Your task to perform on an android device: toggle pop-ups in chrome Image 0: 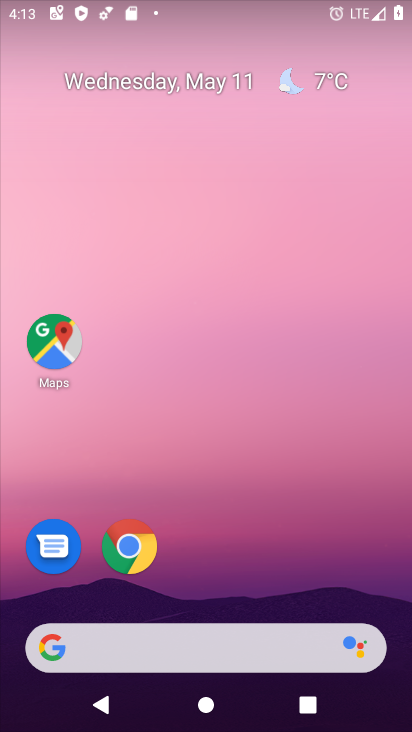
Step 0: drag from (358, 630) to (411, 235)
Your task to perform on an android device: toggle pop-ups in chrome Image 1: 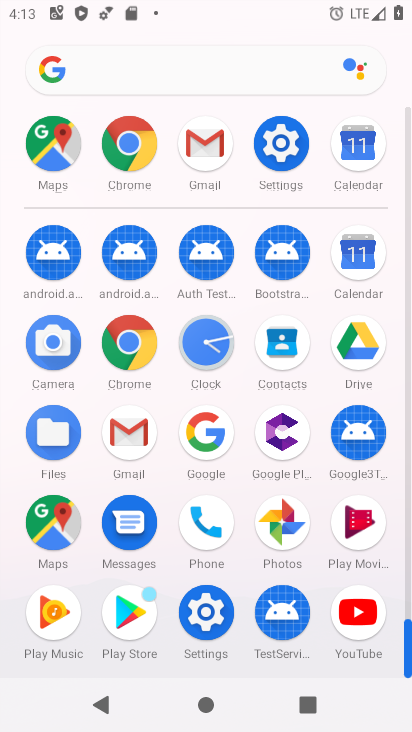
Step 1: click (123, 331)
Your task to perform on an android device: toggle pop-ups in chrome Image 2: 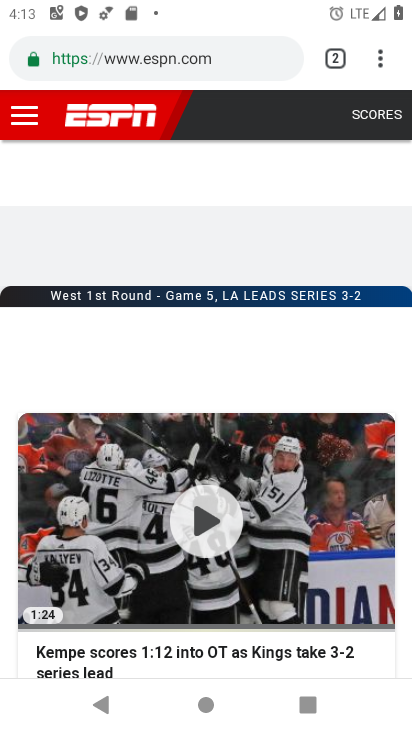
Step 2: click (384, 57)
Your task to perform on an android device: toggle pop-ups in chrome Image 3: 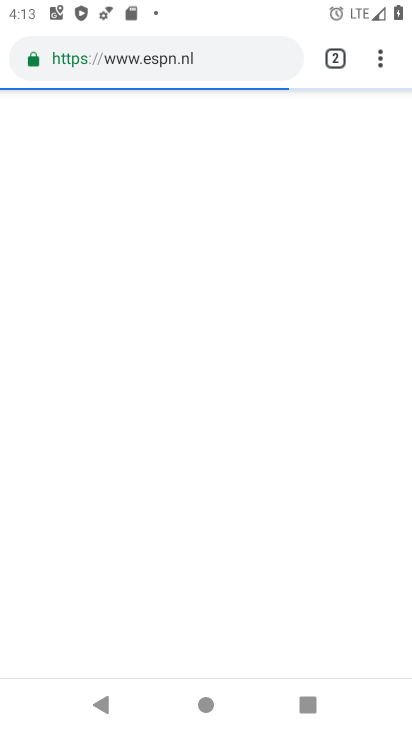
Step 3: click (375, 58)
Your task to perform on an android device: toggle pop-ups in chrome Image 4: 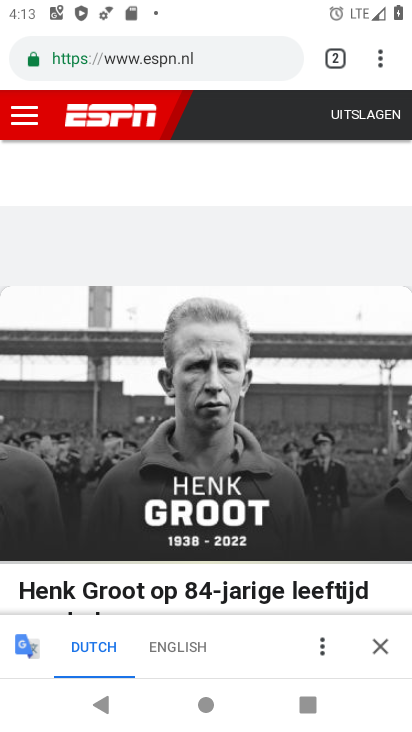
Step 4: drag from (379, 56) to (208, 585)
Your task to perform on an android device: toggle pop-ups in chrome Image 5: 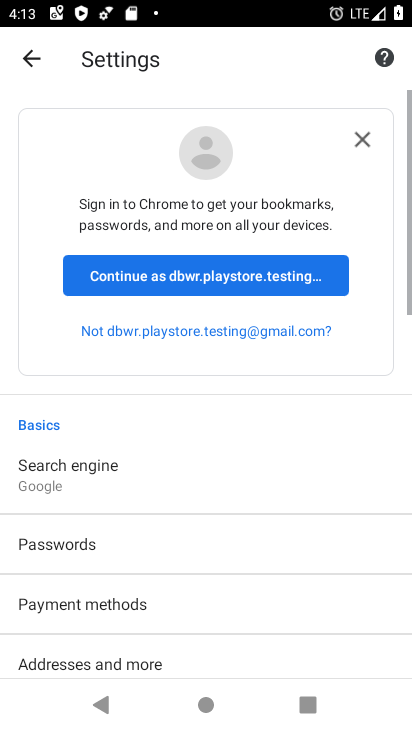
Step 5: drag from (162, 584) to (225, 71)
Your task to perform on an android device: toggle pop-ups in chrome Image 6: 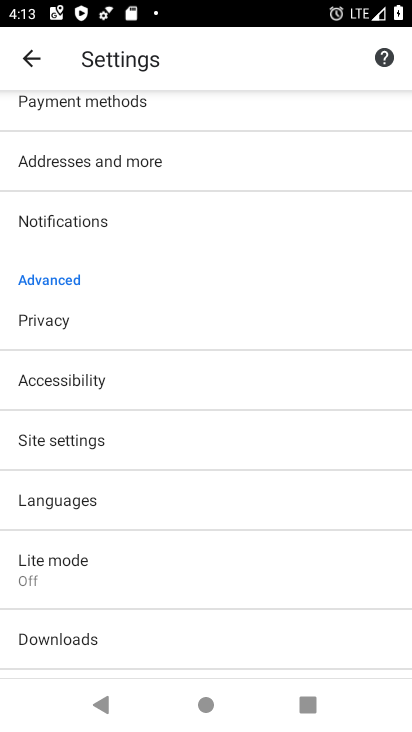
Step 6: click (132, 443)
Your task to perform on an android device: toggle pop-ups in chrome Image 7: 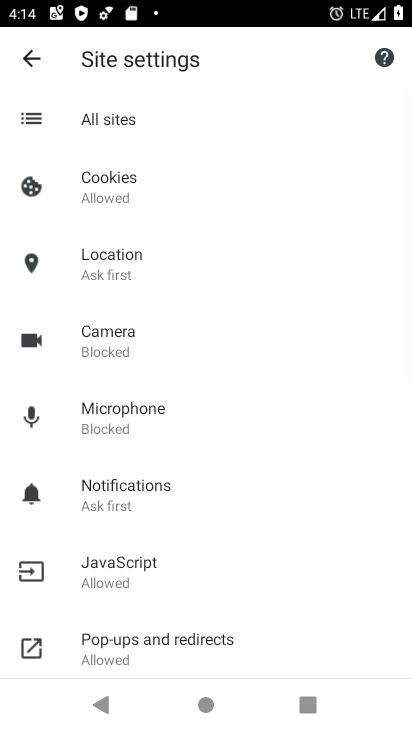
Step 7: drag from (234, 669) to (253, 535)
Your task to perform on an android device: toggle pop-ups in chrome Image 8: 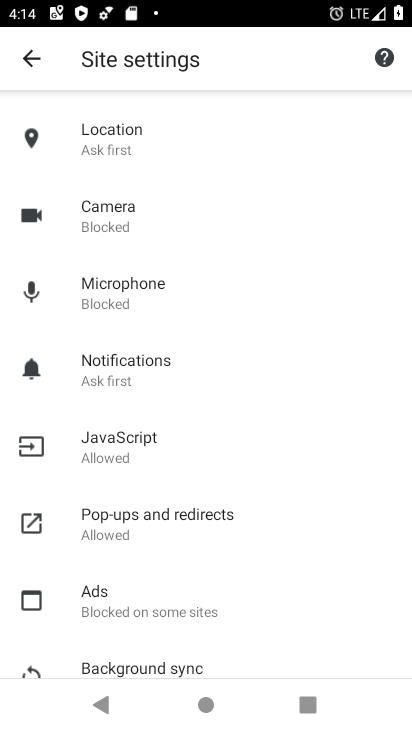
Step 8: click (253, 533)
Your task to perform on an android device: toggle pop-ups in chrome Image 9: 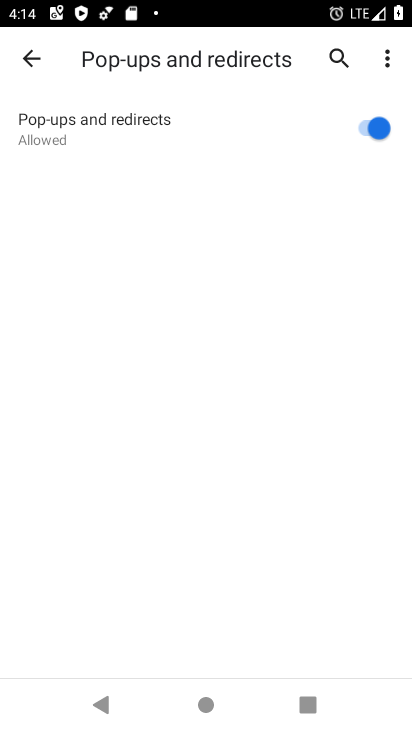
Step 9: click (375, 126)
Your task to perform on an android device: toggle pop-ups in chrome Image 10: 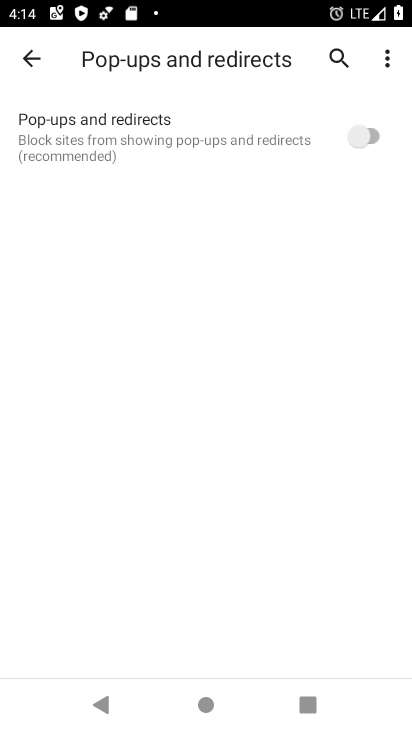
Step 10: task complete